Your task to perform on an android device: find which apps use the phone's location Image 0: 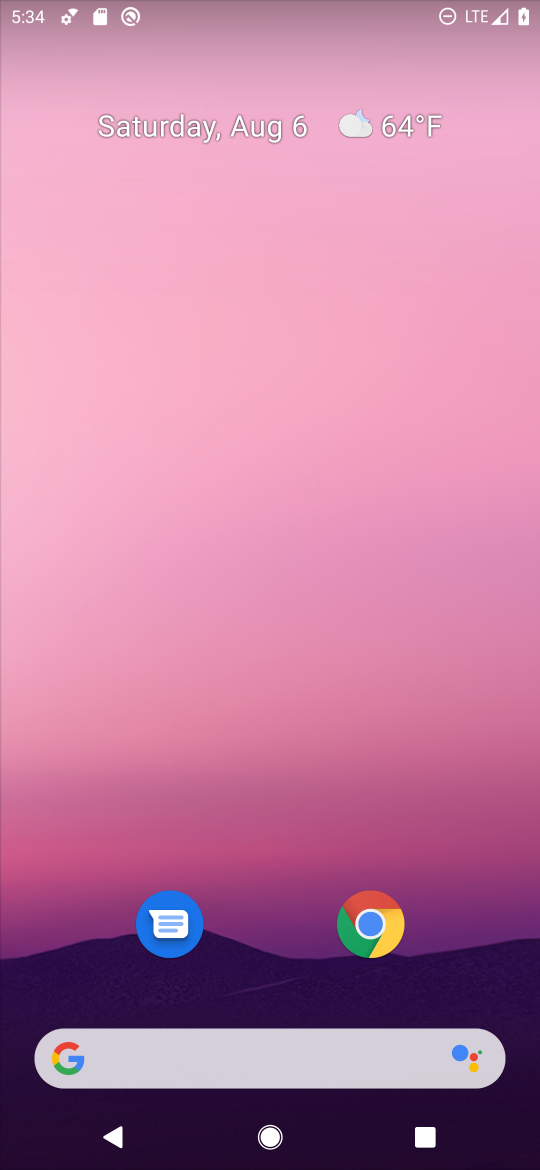
Step 0: drag from (281, 832) to (264, 7)
Your task to perform on an android device: find which apps use the phone's location Image 1: 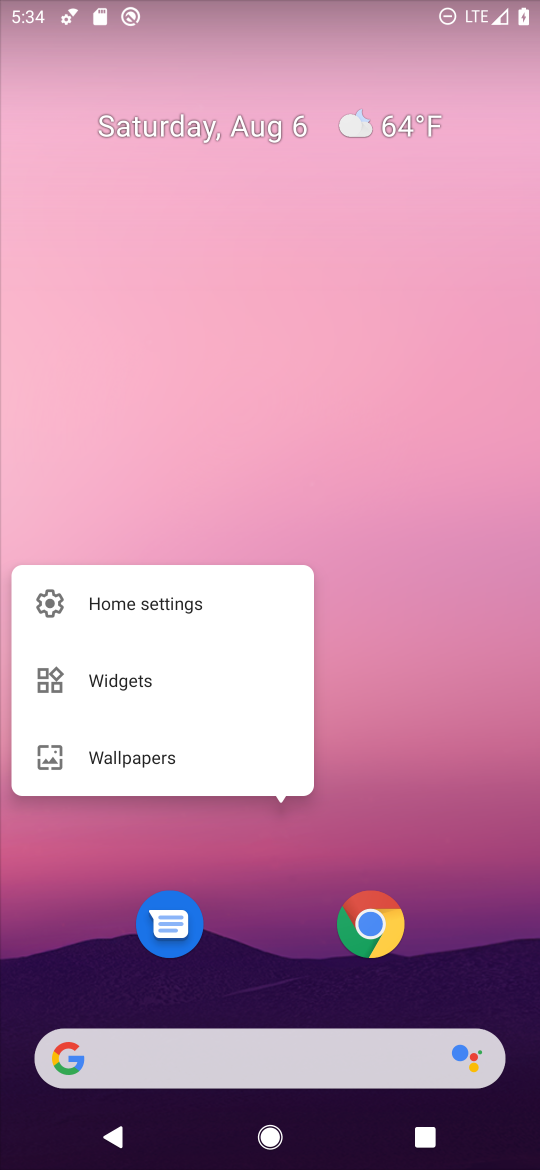
Step 1: click (319, 542)
Your task to perform on an android device: find which apps use the phone's location Image 2: 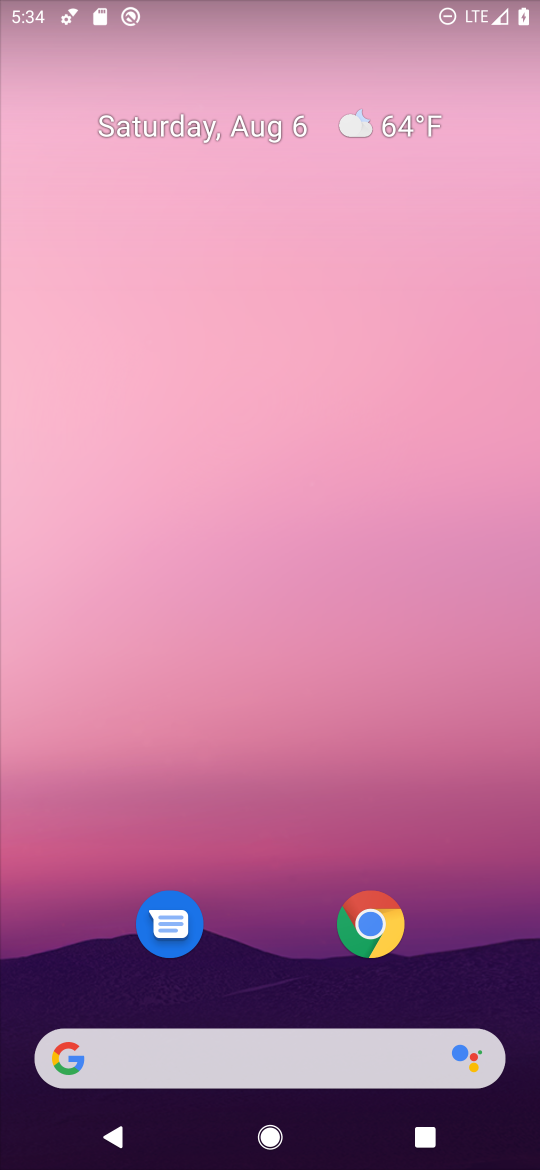
Step 2: drag from (261, 816) to (219, 126)
Your task to perform on an android device: find which apps use the phone's location Image 3: 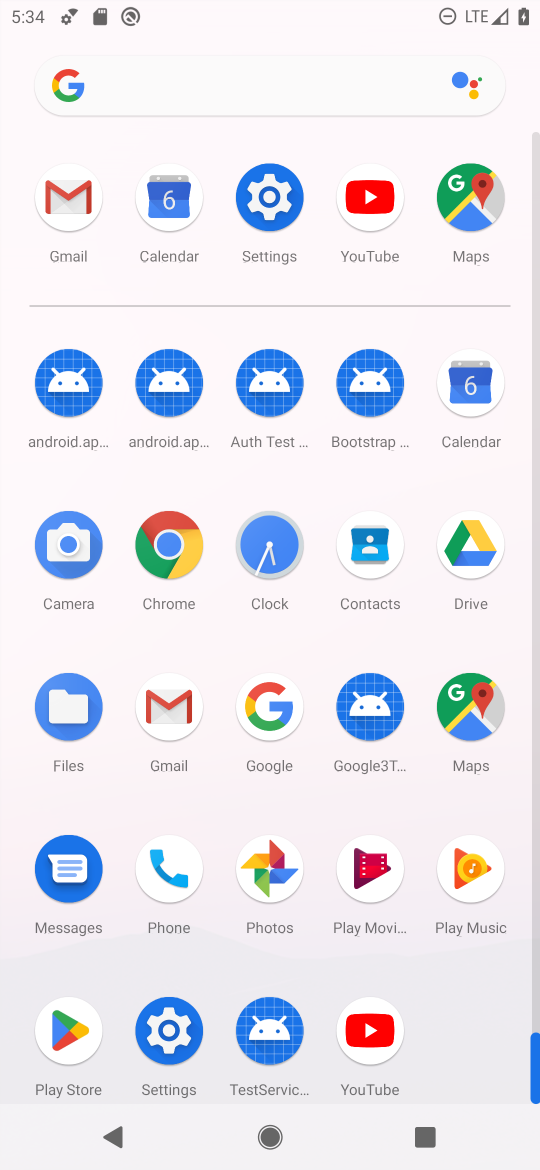
Step 3: click (271, 187)
Your task to perform on an android device: find which apps use the phone's location Image 4: 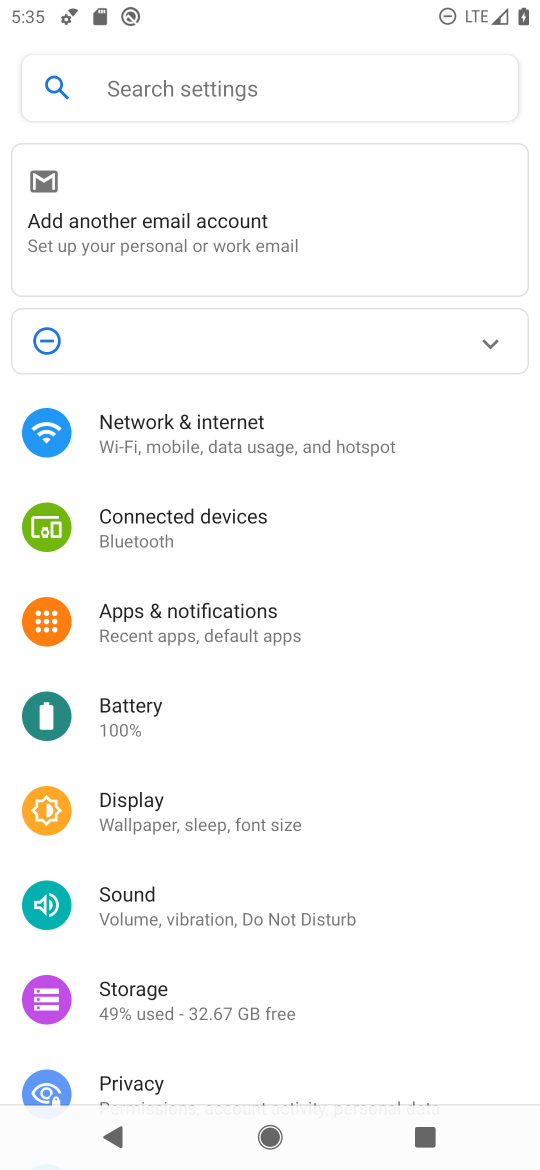
Step 4: drag from (311, 996) to (311, 542)
Your task to perform on an android device: find which apps use the phone's location Image 5: 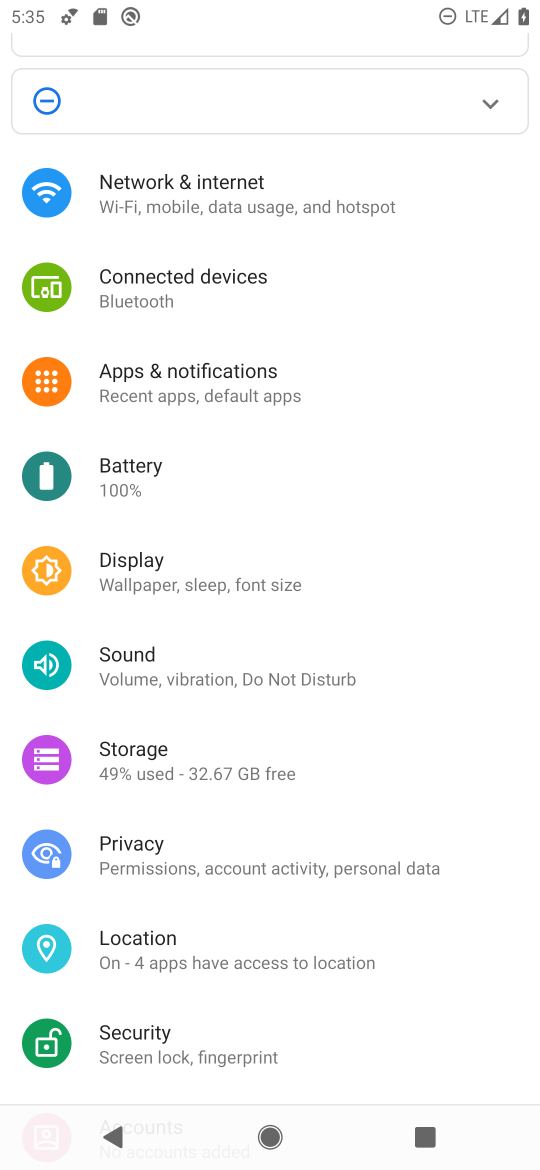
Step 5: click (132, 924)
Your task to perform on an android device: find which apps use the phone's location Image 6: 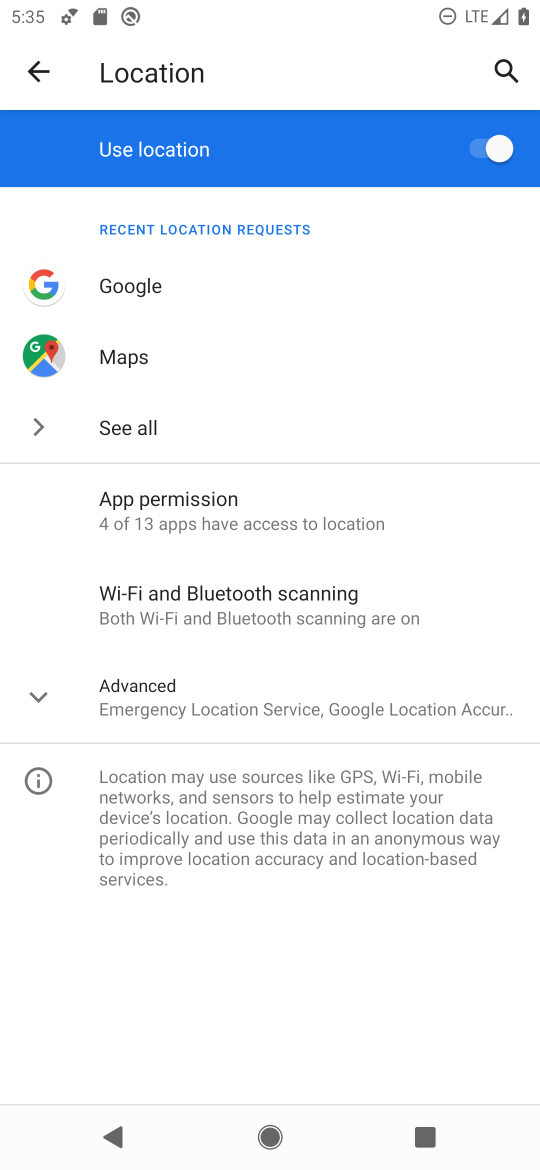
Step 6: click (133, 423)
Your task to perform on an android device: find which apps use the phone's location Image 7: 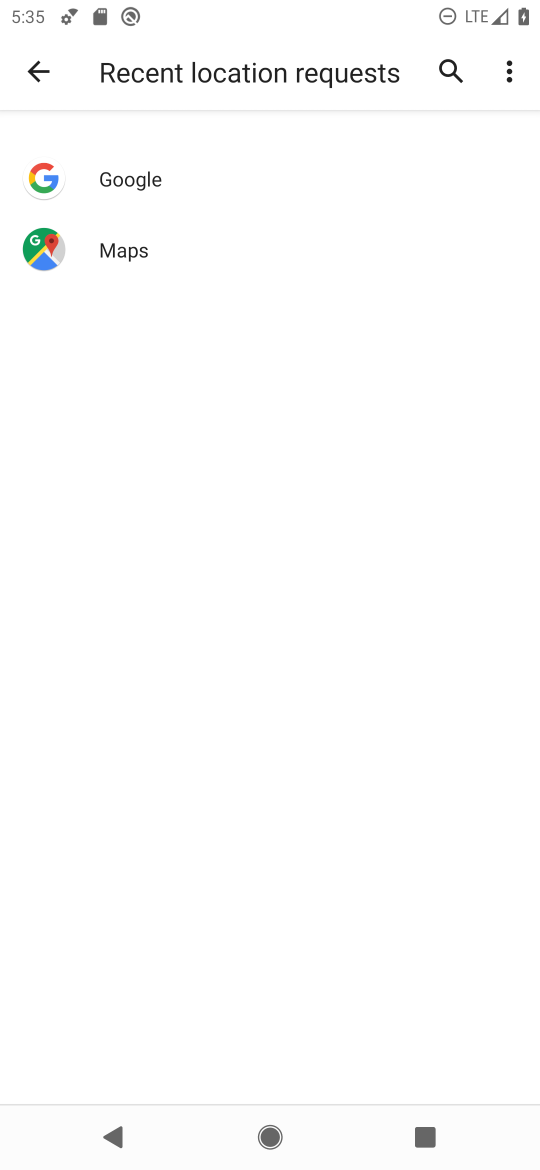
Step 7: task complete